Your task to perform on an android device: turn on improve location accuracy Image 0: 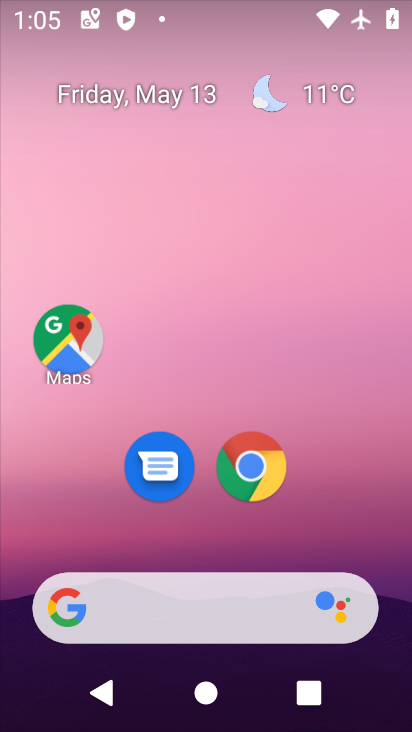
Step 0: drag from (169, 547) to (261, 26)
Your task to perform on an android device: turn on improve location accuracy Image 1: 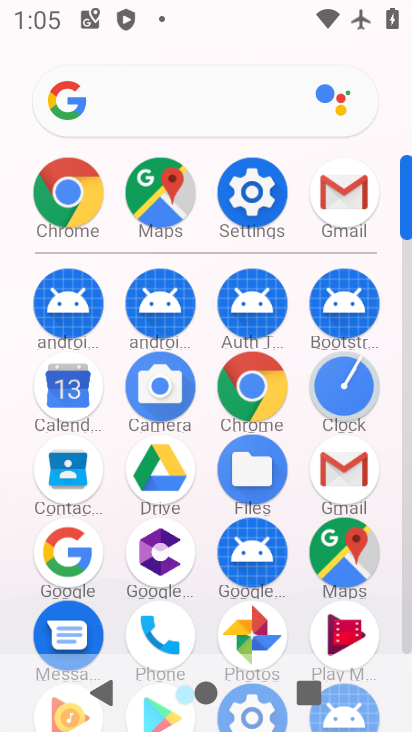
Step 1: click (243, 191)
Your task to perform on an android device: turn on improve location accuracy Image 2: 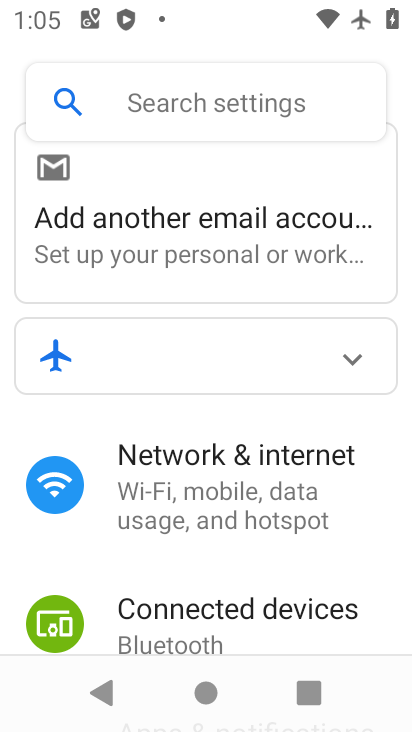
Step 2: drag from (133, 613) to (176, 250)
Your task to perform on an android device: turn on improve location accuracy Image 3: 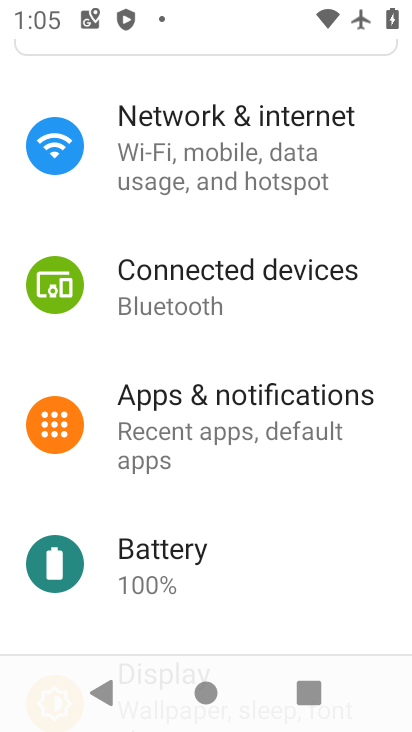
Step 3: drag from (256, 620) to (260, 233)
Your task to perform on an android device: turn on improve location accuracy Image 4: 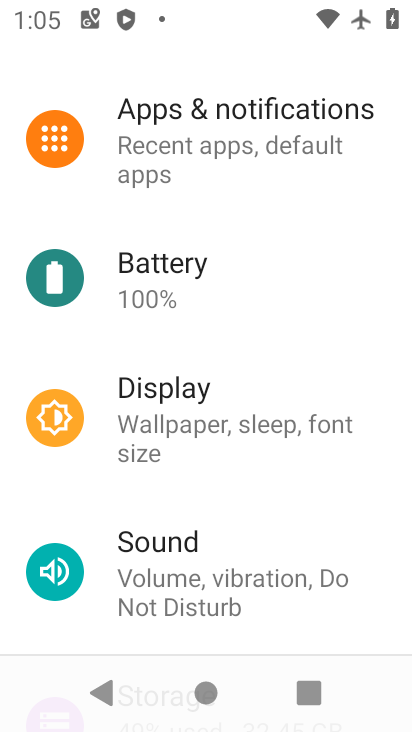
Step 4: drag from (204, 581) to (251, 194)
Your task to perform on an android device: turn on improve location accuracy Image 5: 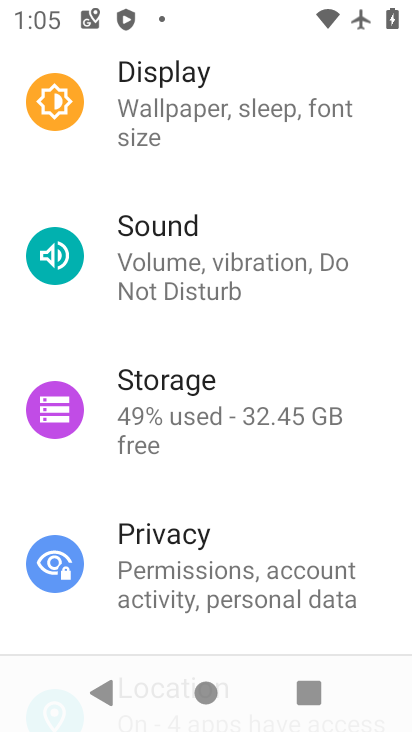
Step 5: drag from (186, 600) to (206, 254)
Your task to perform on an android device: turn on improve location accuracy Image 6: 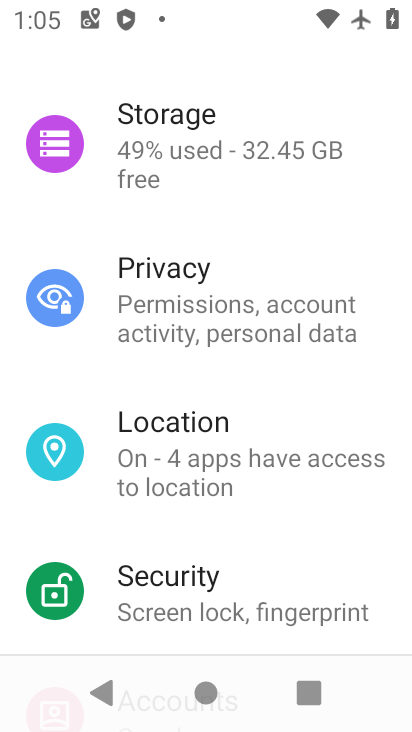
Step 6: click (168, 431)
Your task to perform on an android device: turn on improve location accuracy Image 7: 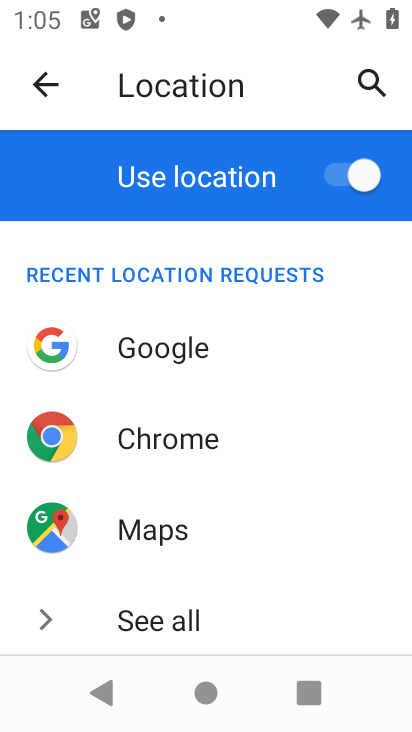
Step 7: drag from (166, 615) to (229, 238)
Your task to perform on an android device: turn on improve location accuracy Image 8: 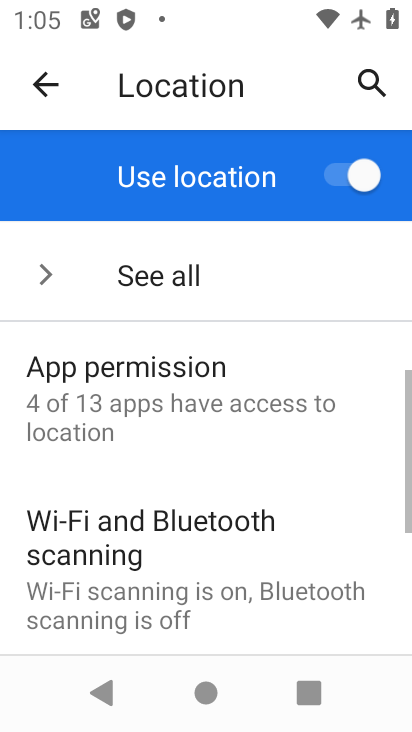
Step 8: drag from (168, 562) to (247, 277)
Your task to perform on an android device: turn on improve location accuracy Image 9: 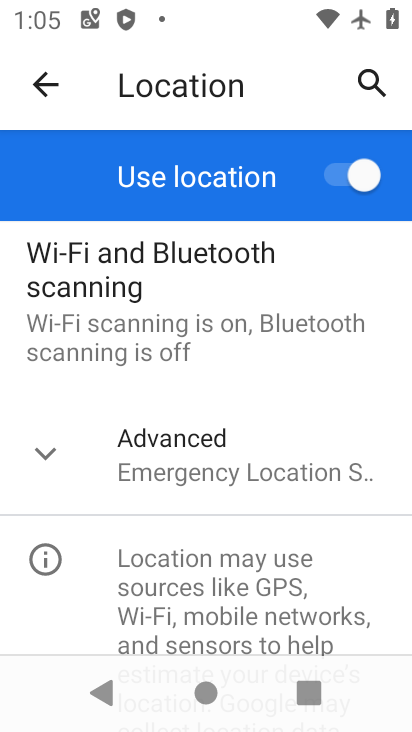
Step 9: click (234, 477)
Your task to perform on an android device: turn on improve location accuracy Image 10: 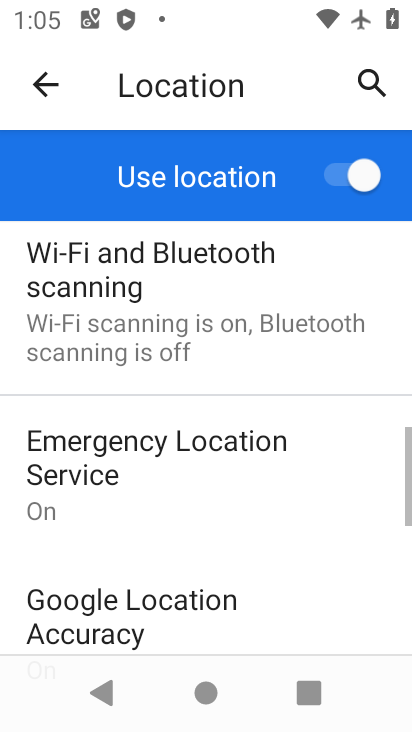
Step 10: drag from (261, 519) to (325, 305)
Your task to perform on an android device: turn on improve location accuracy Image 11: 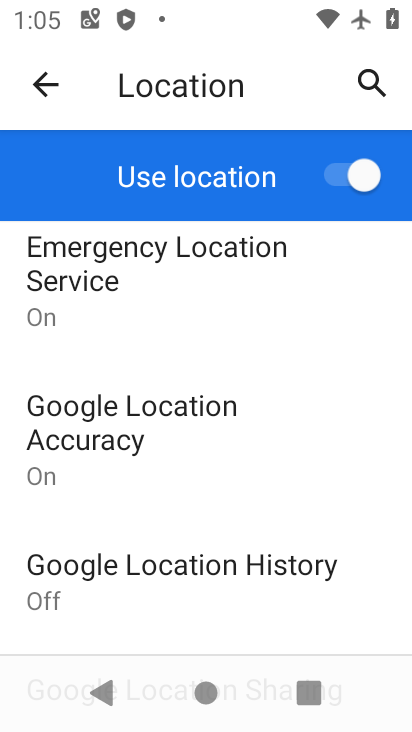
Step 11: click (152, 454)
Your task to perform on an android device: turn on improve location accuracy Image 12: 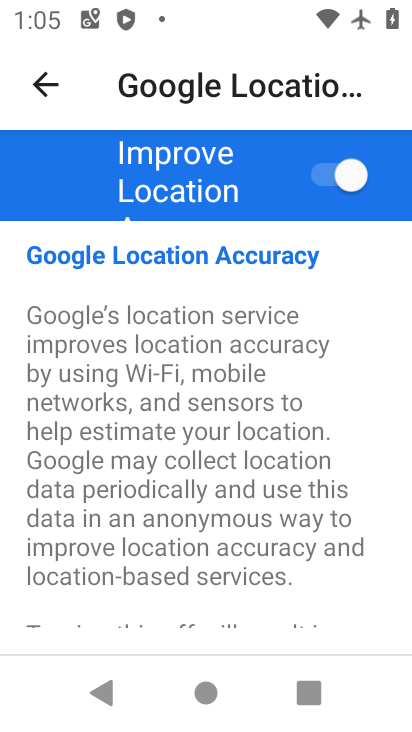
Step 12: task complete